Your task to perform on an android device: Open wifi settings Image 0: 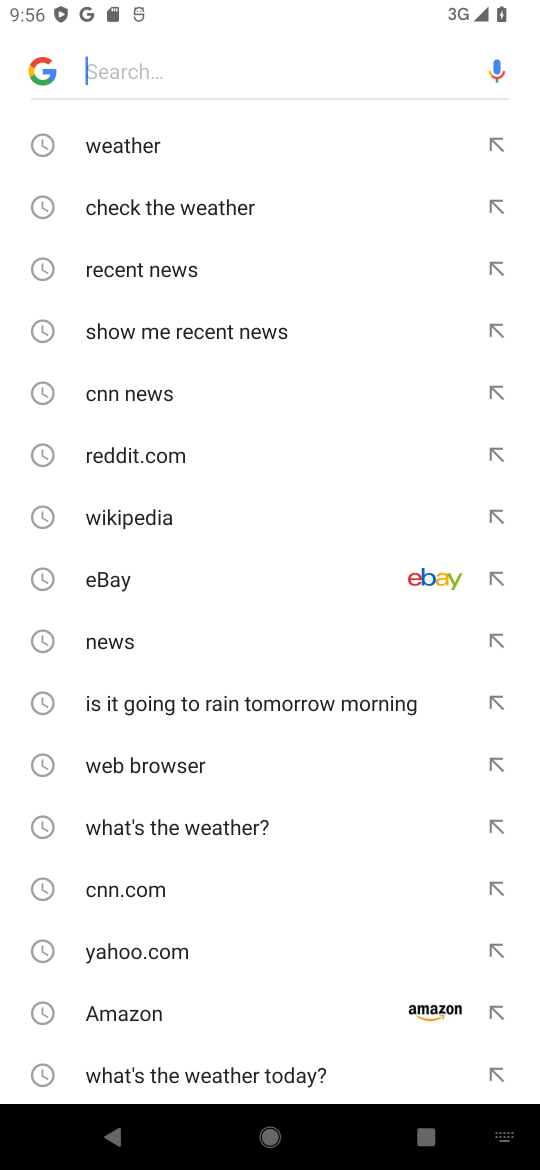
Step 0: press home button
Your task to perform on an android device: Open wifi settings Image 1: 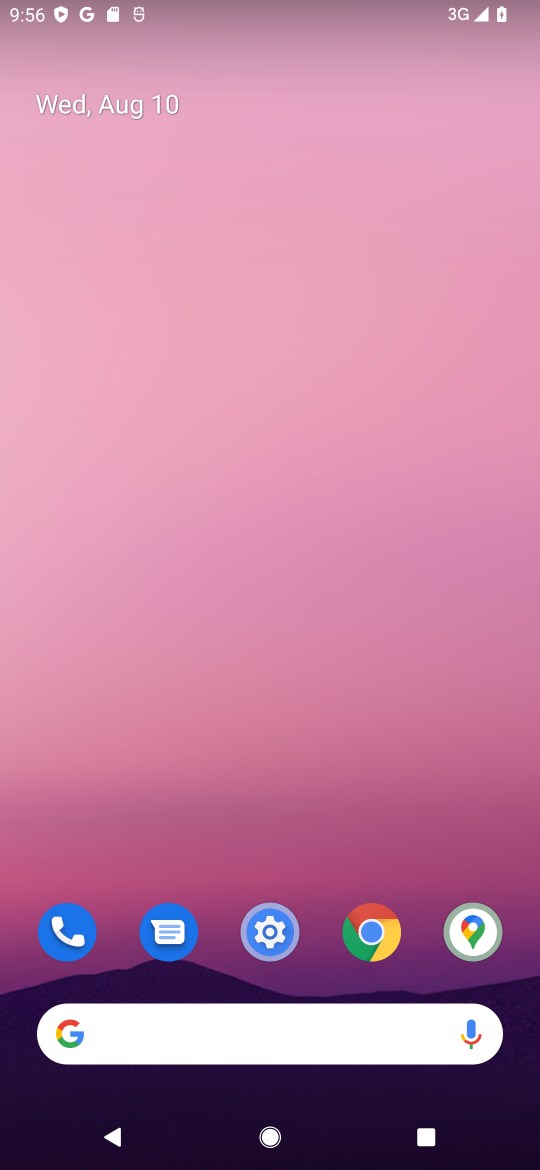
Step 1: click (267, 933)
Your task to perform on an android device: Open wifi settings Image 2: 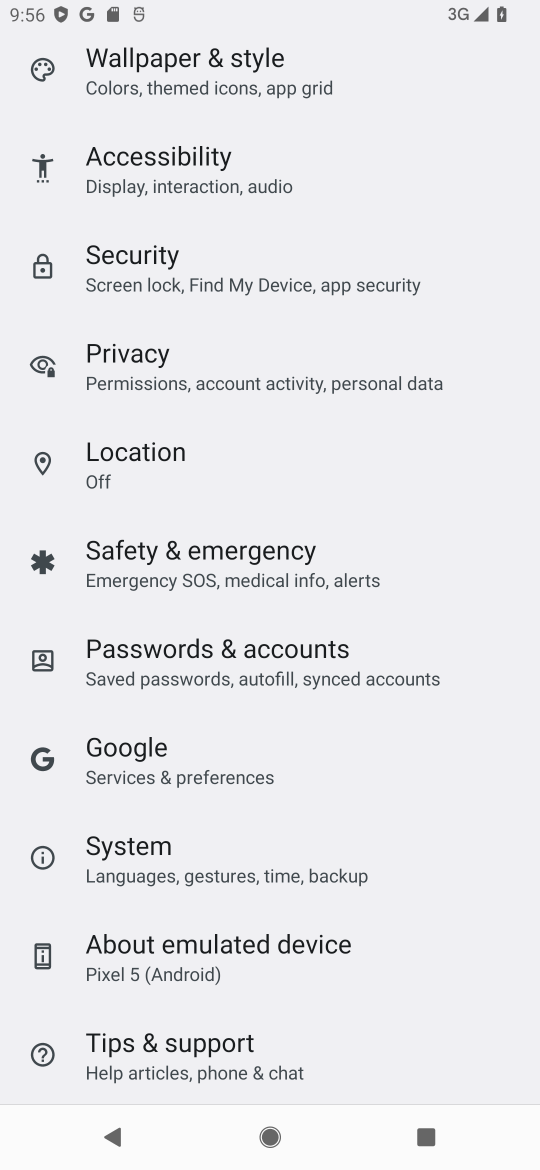
Step 2: drag from (347, 138) to (196, 838)
Your task to perform on an android device: Open wifi settings Image 3: 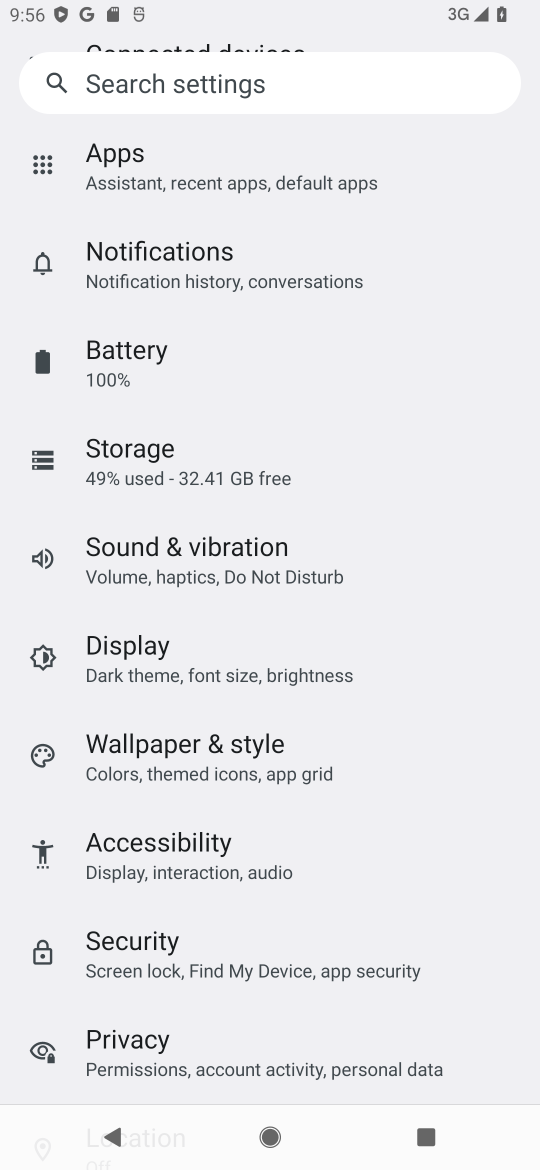
Step 3: drag from (307, 215) to (293, 809)
Your task to perform on an android device: Open wifi settings Image 4: 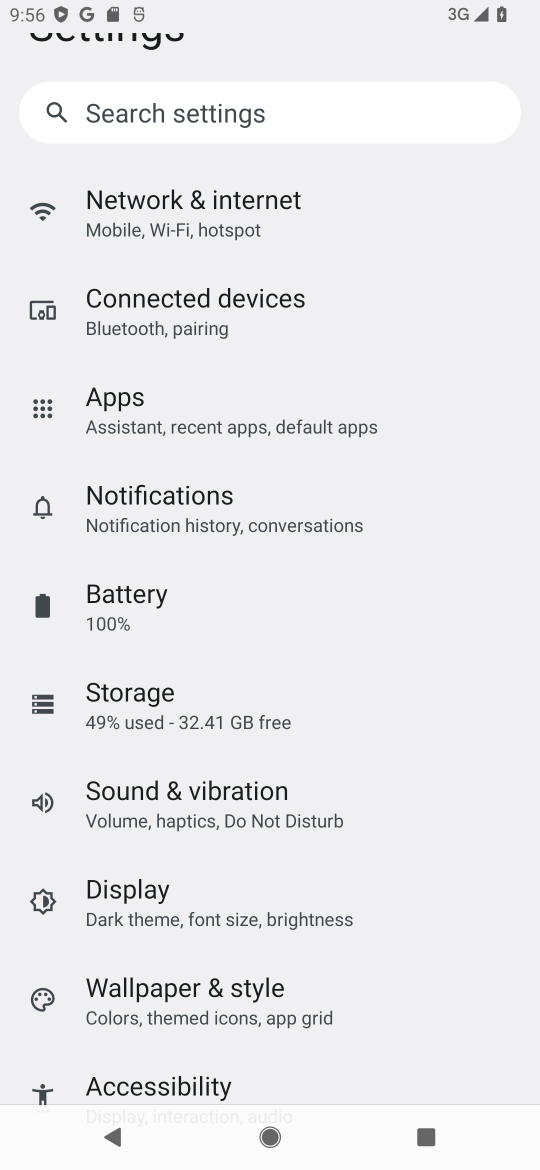
Step 4: click (207, 189)
Your task to perform on an android device: Open wifi settings Image 5: 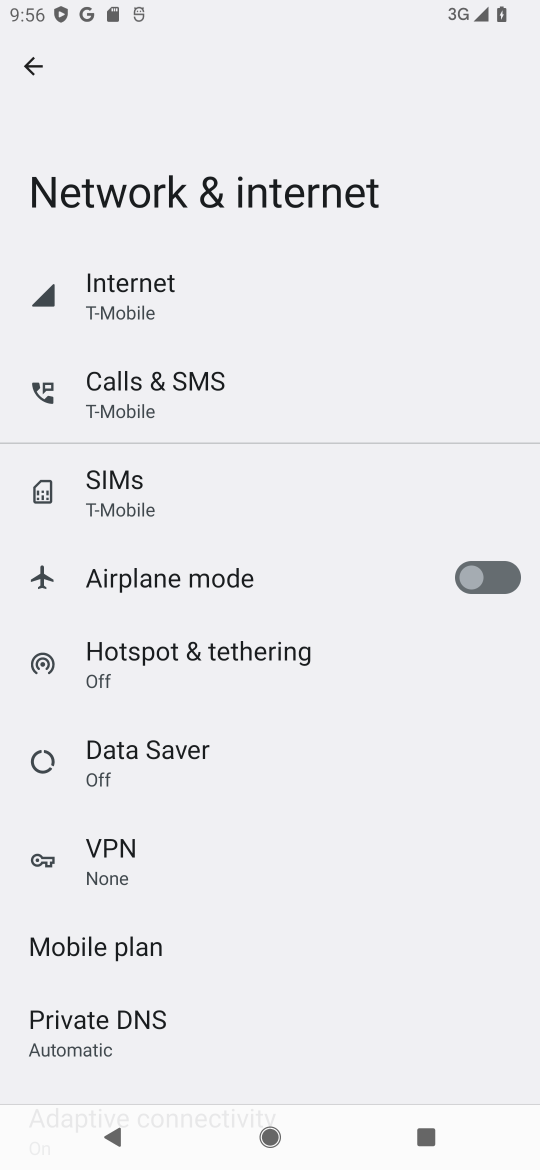
Step 5: click (109, 278)
Your task to perform on an android device: Open wifi settings Image 6: 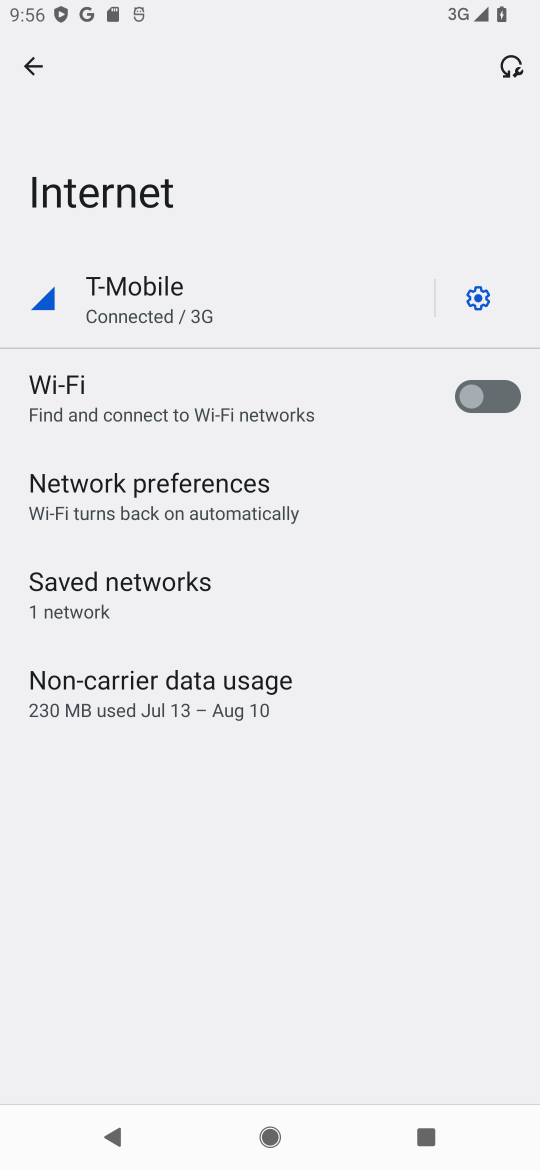
Step 6: task complete